Your task to perform on an android device: Do I have any events today? Image 0: 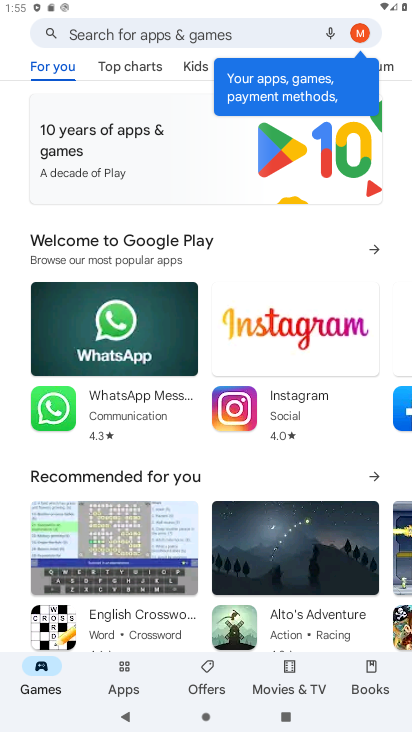
Step 0: press home button
Your task to perform on an android device: Do I have any events today? Image 1: 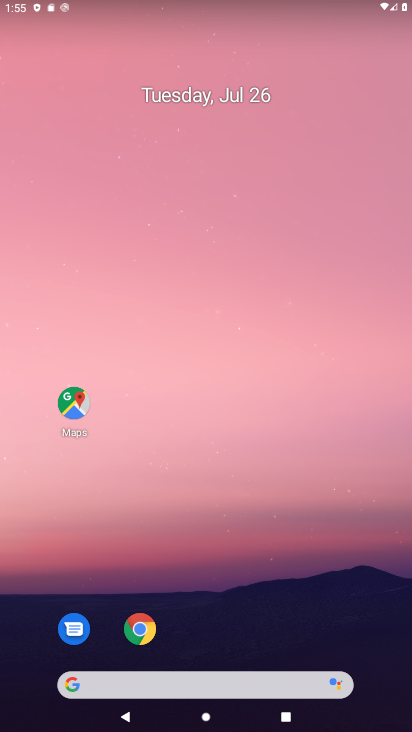
Step 1: drag from (218, 635) to (251, 243)
Your task to perform on an android device: Do I have any events today? Image 2: 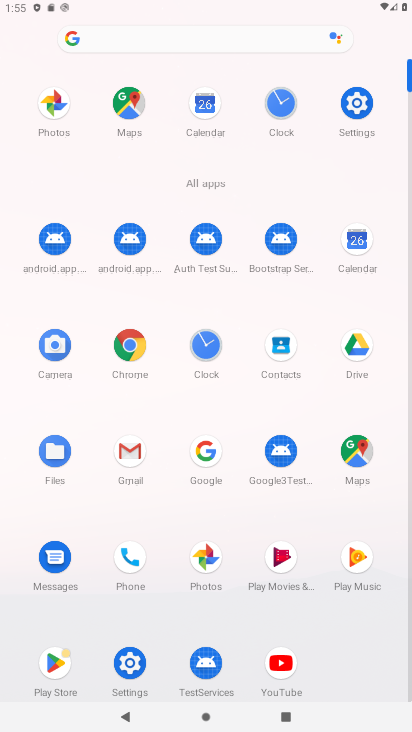
Step 2: click (353, 244)
Your task to perform on an android device: Do I have any events today? Image 3: 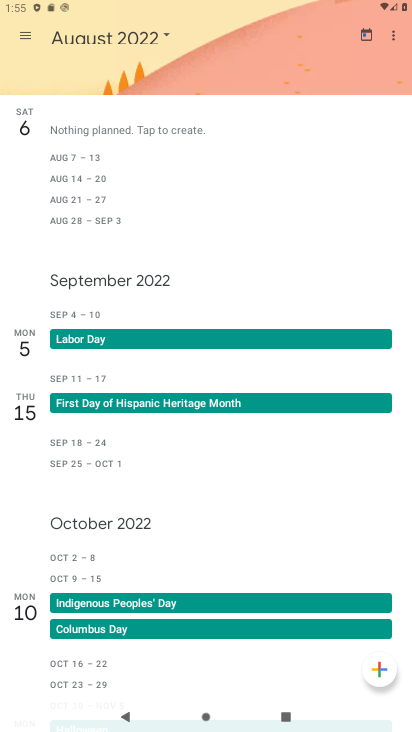
Step 3: click (170, 36)
Your task to perform on an android device: Do I have any events today? Image 4: 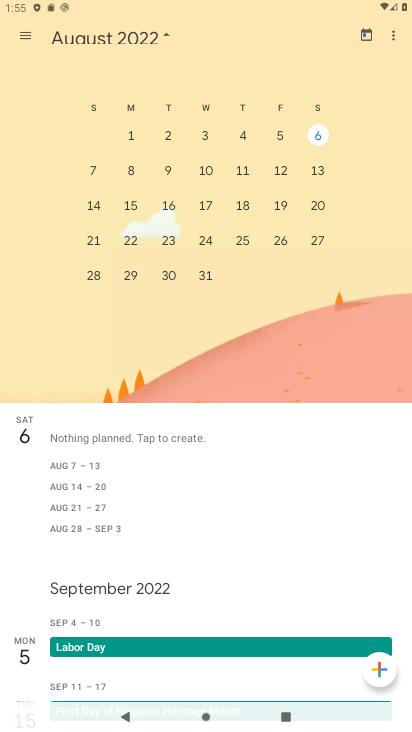
Step 4: drag from (176, 224) to (321, 247)
Your task to perform on an android device: Do I have any events today? Image 5: 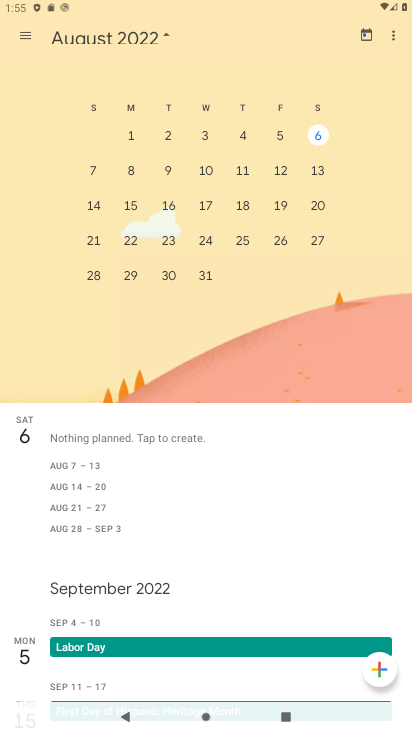
Step 5: drag from (62, 206) to (368, 205)
Your task to perform on an android device: Do I have any events today? Image 6: 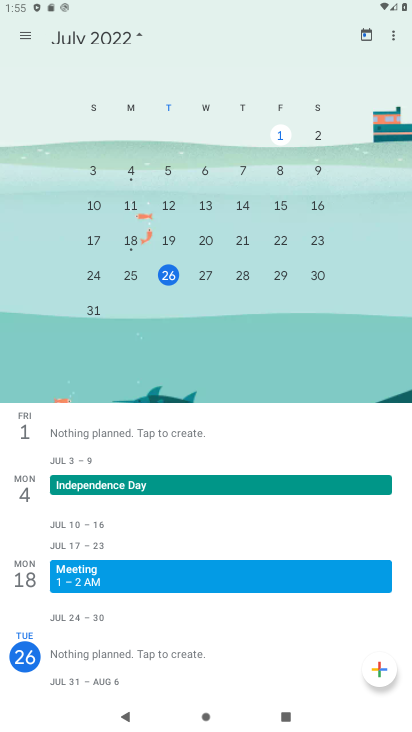
Step 6: click (171, 274)
Your task to perform on an android device: Do I have any events today? Image 7: 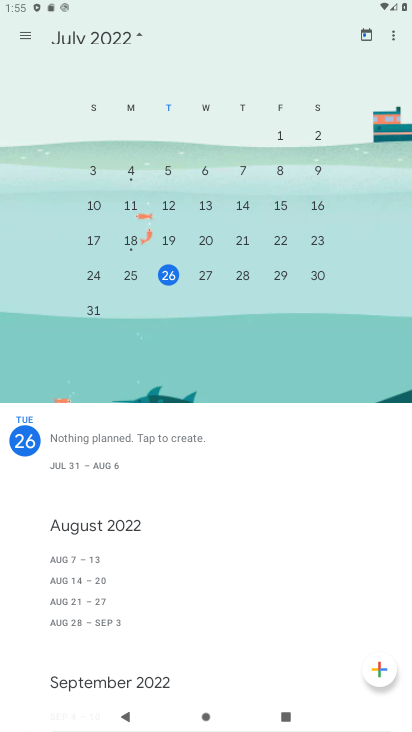
Step 7: task complete